Your task to perform on an android device: Find coffee shops on Maps Image 0: 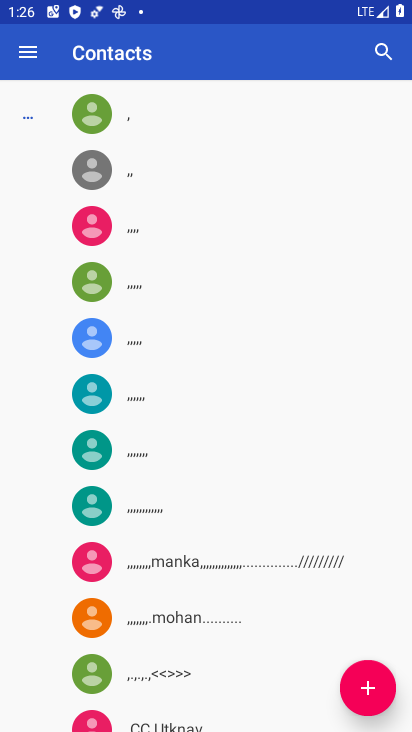
Step 0: press home button
Your task to perform on an android device: Find coffee shops on Maps Image 1: 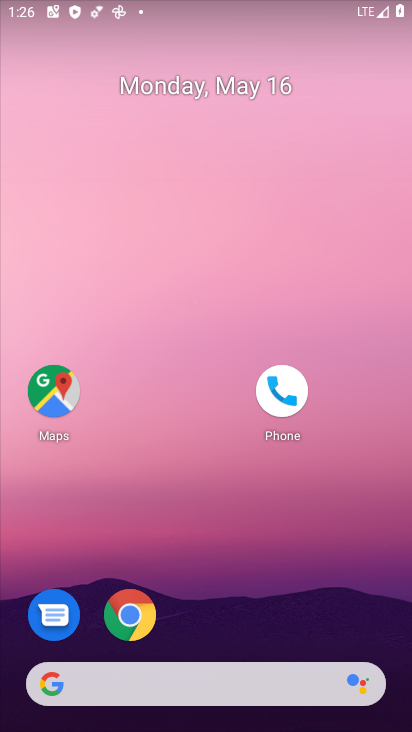
Step 1: drag from (230, 663) to (204, 108)
Your task to perform on an android device: Find coffee shops on Maps Image 2: 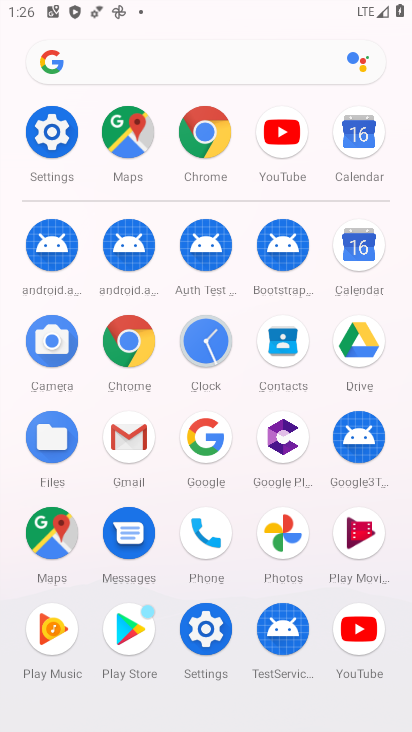
Step 2: click (356, 255)
Your task to perform on an android device: Find coffee shops on Maps Image 3: 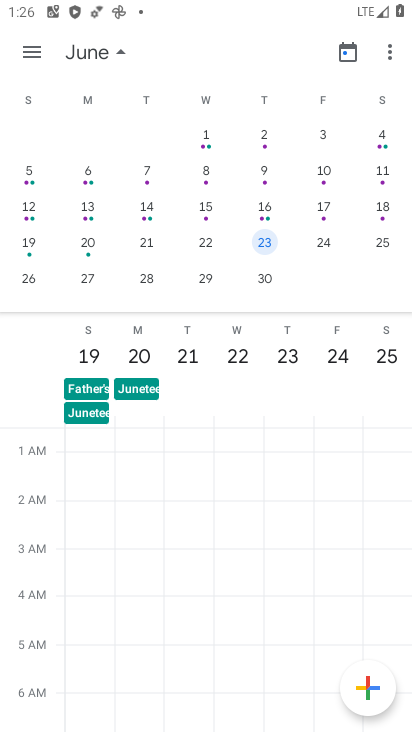
Step 3: press home button
Your task to perform on an android device: Find coffee shops on Maps Image 4: 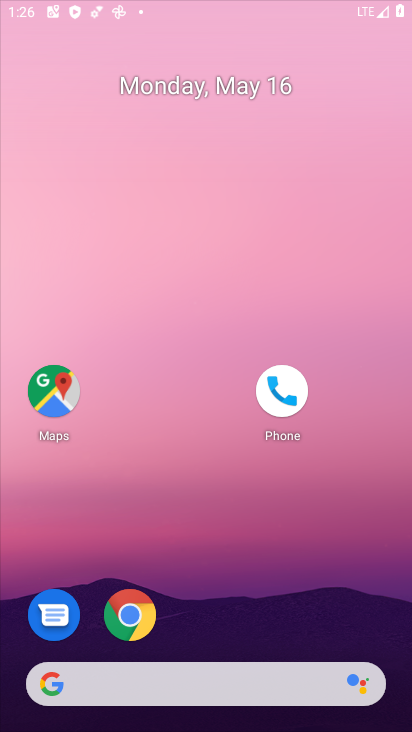
Step 4: drag from (282, 599) to (224, 168)
Your task to perform on an android device: Find coffee shops on Maps Image 5: 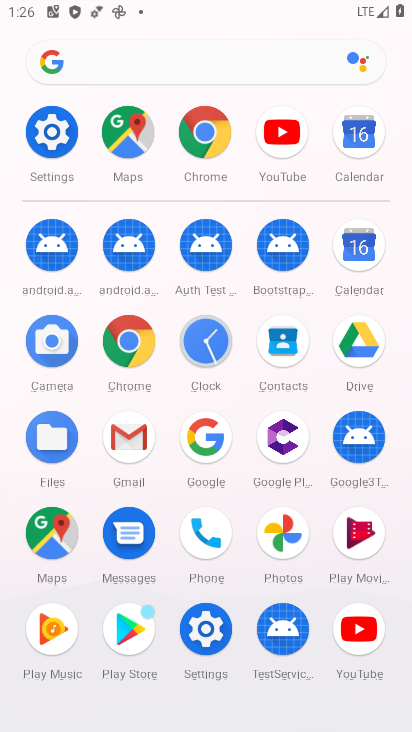
Step 5: click (29, 533)
Your task to perform on an android device: Find coffee shops on Maps Image 6: 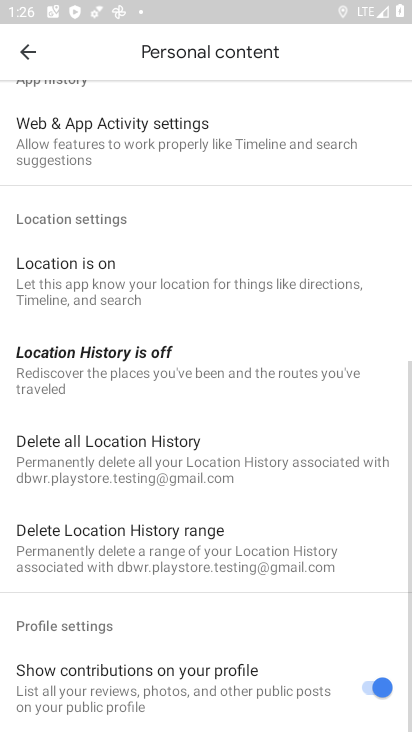
Step 6: press back button
Your task to perform on an android device: Find coffee shops on Maps Image 7: 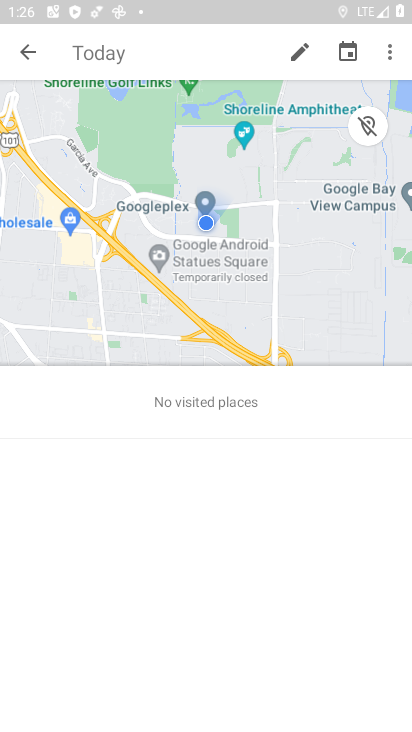
Step 7: press back button
Your task to perform on an android device: Find coffee shops on Maps Image 8: 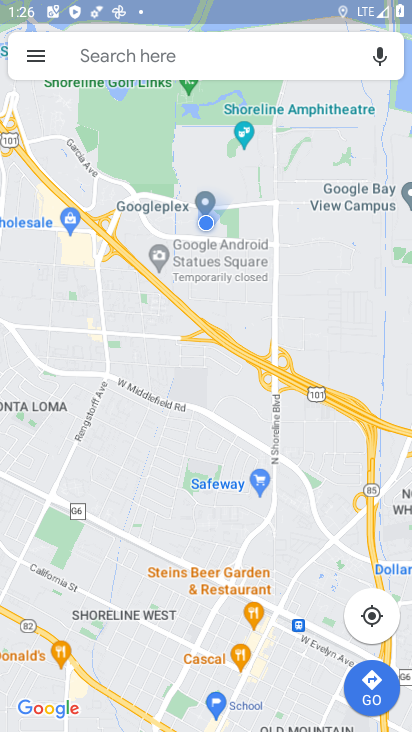
Step 8: click (186, 42)
Your task to perform on an android device: Find coffee shops on Maps Image 9: 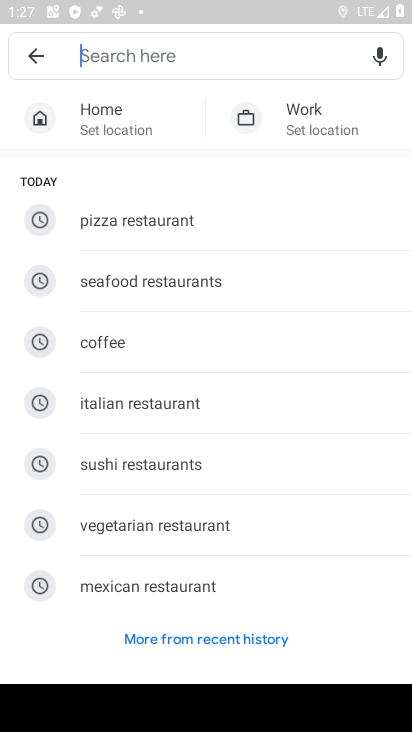
Step 9: click (322, 338)
Your task to perform on an android device: Find coffee shops on Maps Image 10: 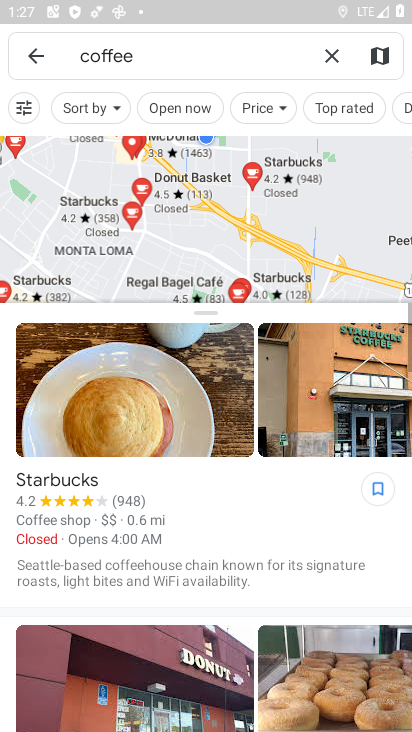
Step 10: task complete